Your task to perform on an android device: Open Google Maps and go to "Timeline" Image 0: 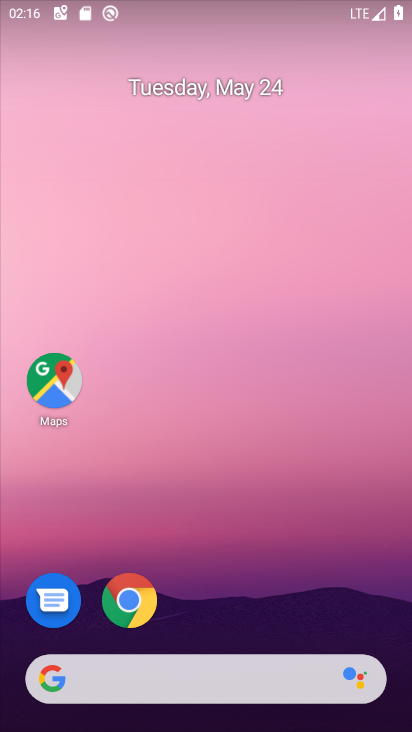
Step 0: click (134, 608)
Your task to perform on an android device: Open Google Maps and go to "Timeline" Image 1: 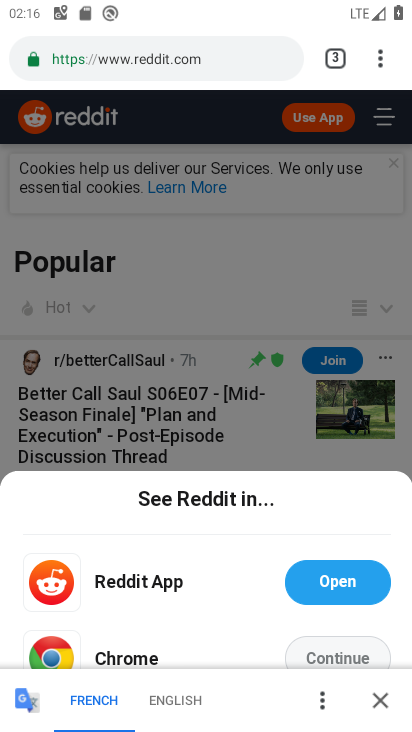
Step 1: click (380, 57)
Your task to perform on an android device: Open Google Maps and go to "Timeline" Image 2: 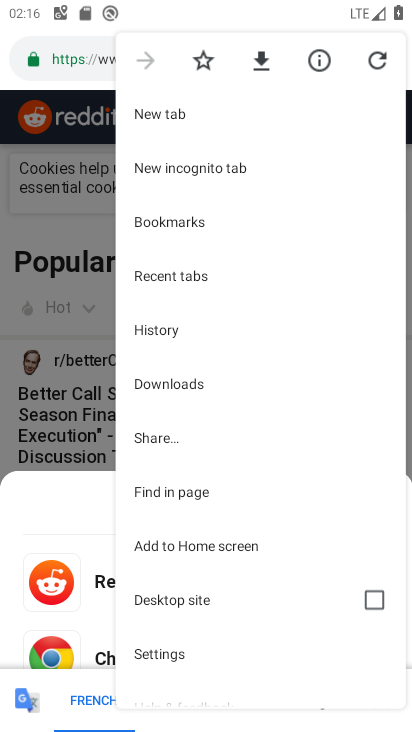
Step 2: drag from (269, 476) to (321, 163)
Your task to perform on an android device: Open Google Maps and go to "Timeline" Image 3: 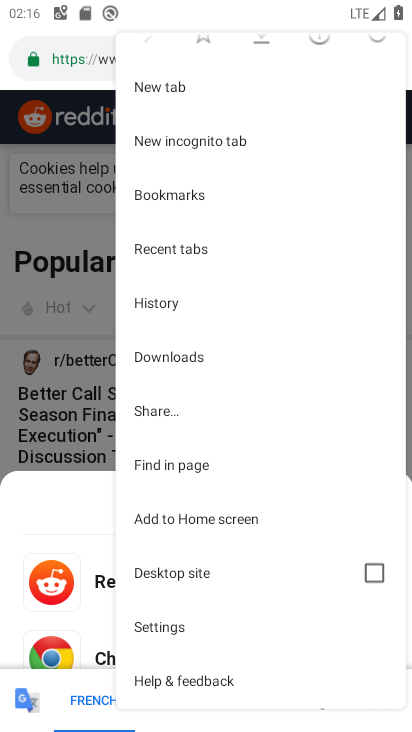
Step 3: click (180, 620)
Your task to perform on an android device: Open Google Maps and go to "Timeline" Image 4: 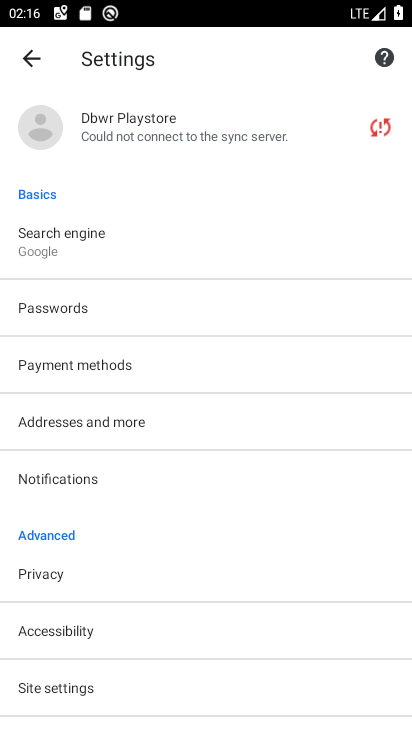
Step 4: drag from (188, 599) to (187, 445)
Your task to perform on an android device: Open Google Maps and go to "Timeline" Image 5: 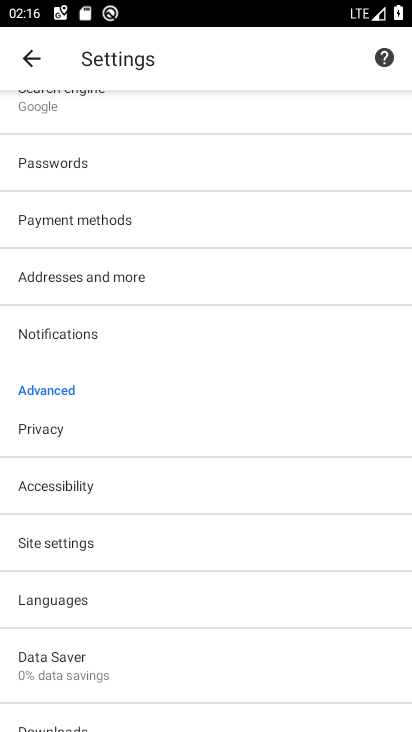
Step 5: click (98, 427)
Your task to perform on an android device: Open Google Maps and go to "Timeline" Image 6: 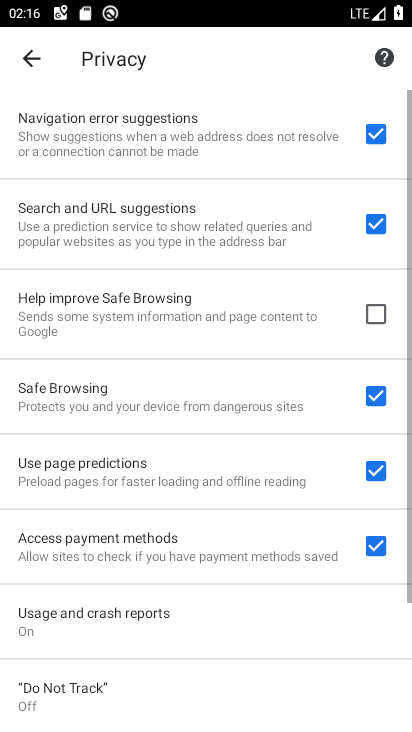
Step 6: drag from (172, 615) to (151, 403)
Your task to perform on an android device: Open Google Maps and go to "Timeline" Image 7: 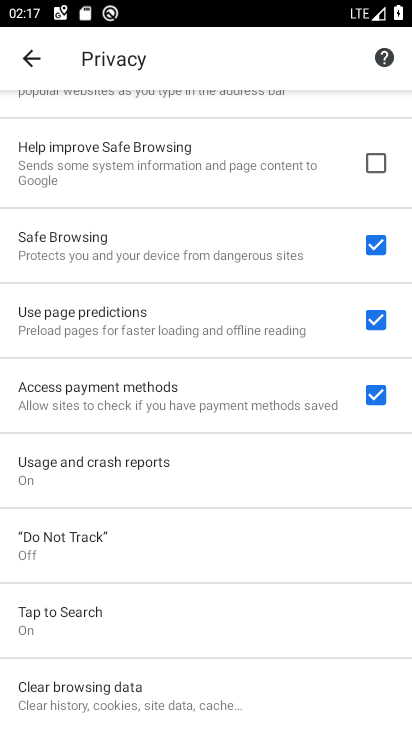
Step 7: drag from (189, 594) to (209, 271)
Your task to perform on an android device: Open Google Maps and go to "Timeline" Image 8: 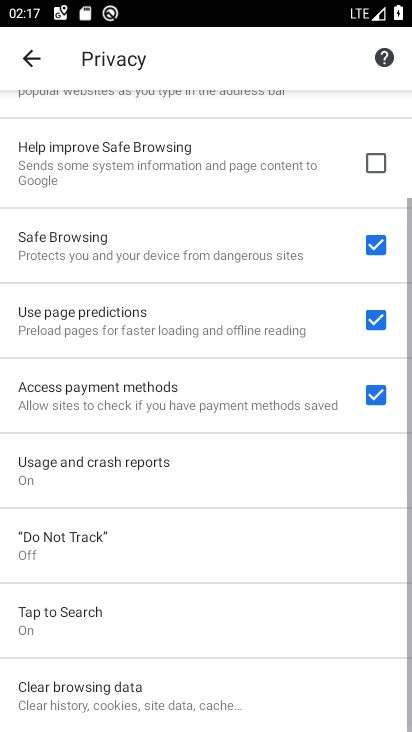
Step 8: drag from (212, 196) to (240, 609)
Your task to perform on an android device: Open Google Maps and go to "Timeline" Image 9: 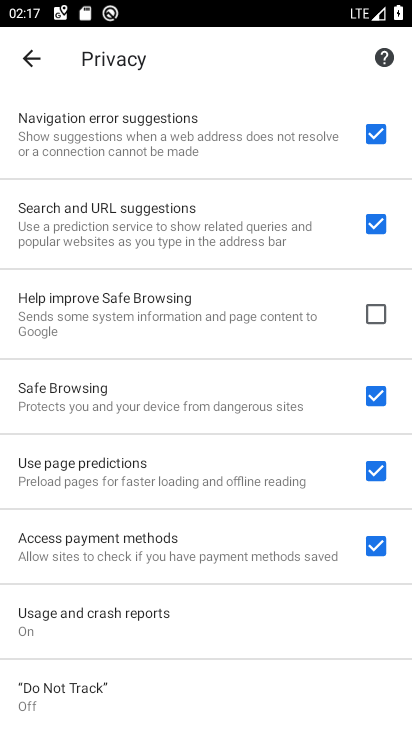
Step 9: drag from (238, 353) to (236, 571)
Your task to perform on an android device: Open Google Maps and go to "Timeline" Image 10: 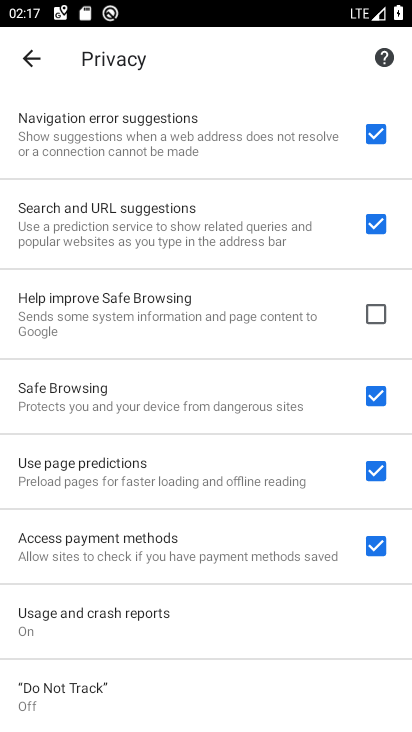
Step 10: drag from (257, 422) to (269, 606)
Your task to perform on an android device: Open Google Maps and go to "Timeline" Image 11: 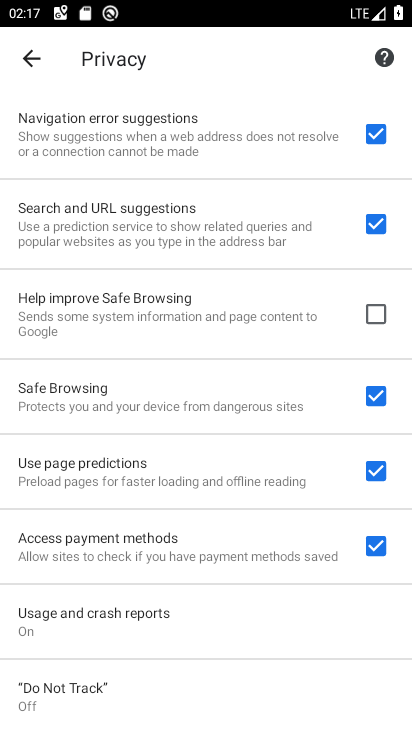
Step 11: press back button
Your task to perform on an android device: Open Google Maps and go to "Timeline" Image 12: 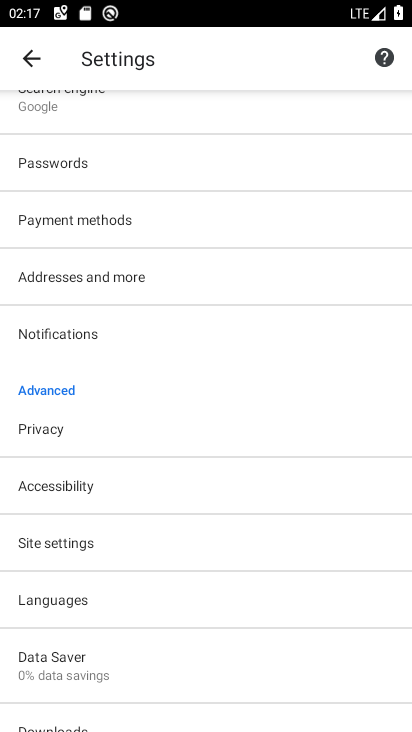
Step 12: drag from (132, 229) to (182, 510)
Your task to perform on an android device: Open Google Maps and go to "Timeline" Image 13: 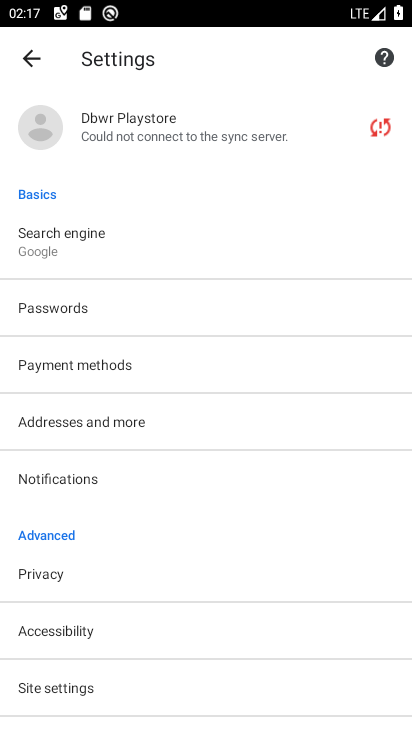
Step 13: drag from (114, 495) to (90, 166)
Your task to perform on an android device: Open Google Maps and go to "Timeline" Image 14: 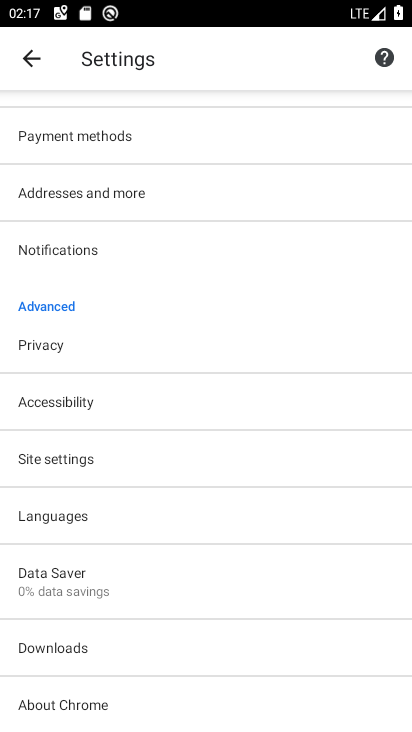
Step 14: click (142, 403)
Your task to perform on an android device: Open Google Maps and go to "Timeline" Image 15: 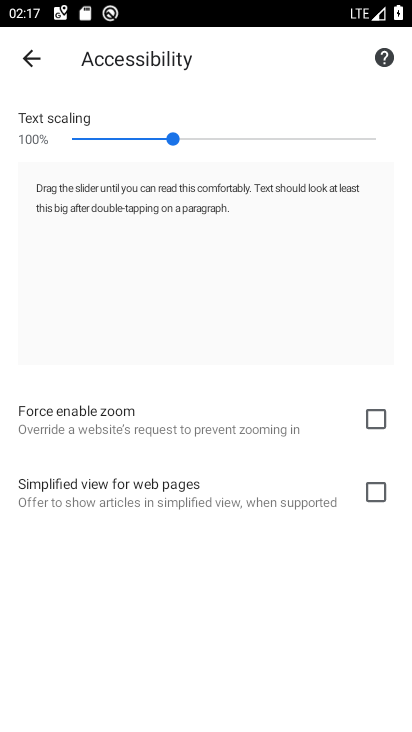
Step 15: press back button
Your task to perform on an android device: Open Google Maps and go to "Timeline" Image 16: 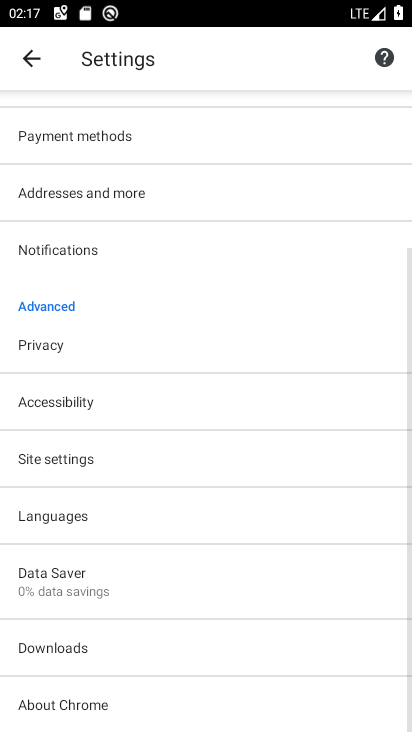
Step 16: click (89, 345)
Your task to perform on an android device: Open Google Maps and go to "Timeline" Image 17: 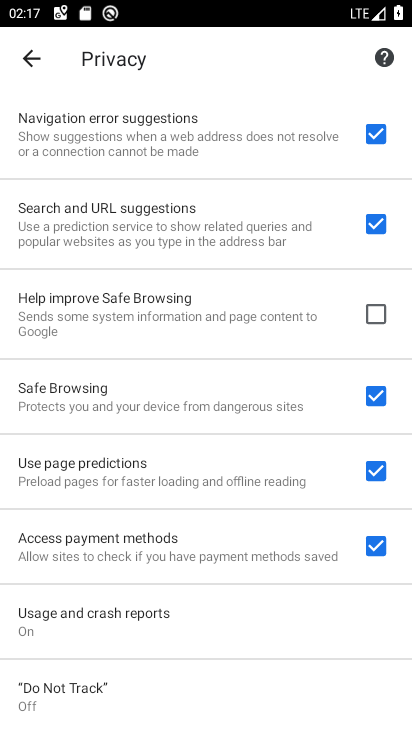
Step 17: press back button
Your task to perform on an android device: Open Google Maps and go to "Timeline" Image 18: 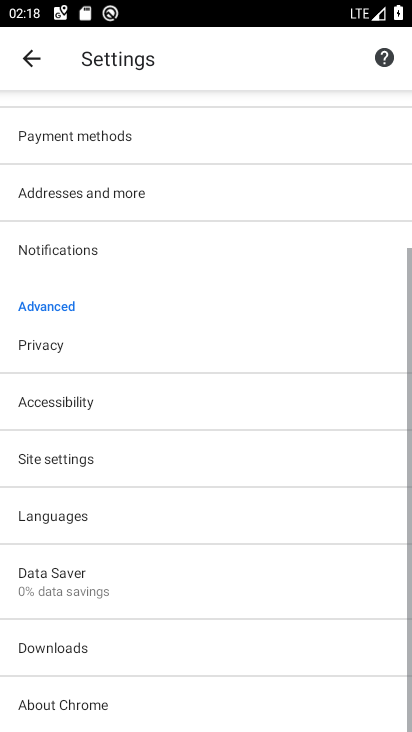
Step 18: click (299, 462)
Your task to perform on an android device: Open Google Maps and go to "Timeline" Image 19: 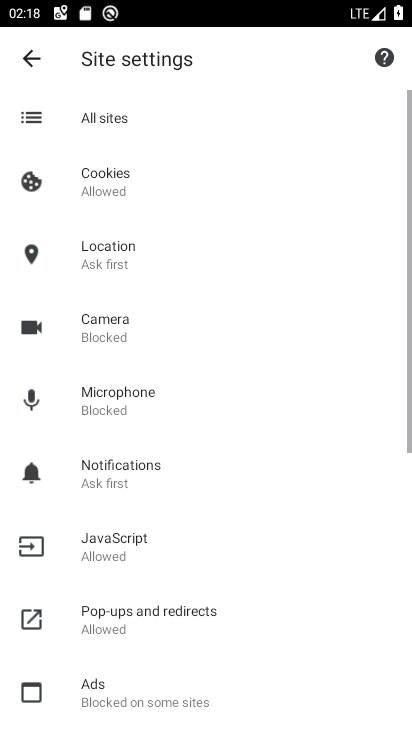
Step 19: drag from (233, 500) to (279, 199)
Your task to perform on an android device: Open Google Maps and go to "Timeline" Image 20: 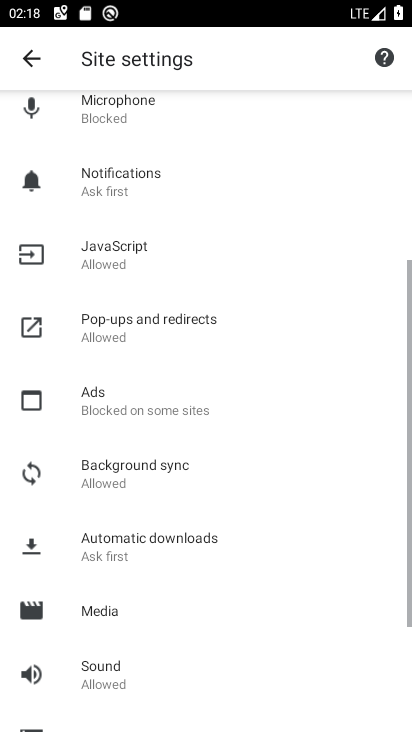
Step 20: drag from (281, 460) to (270, 140)
Your task to perform on an android device: Open Google Maps and go to "Timeline" Image 21: 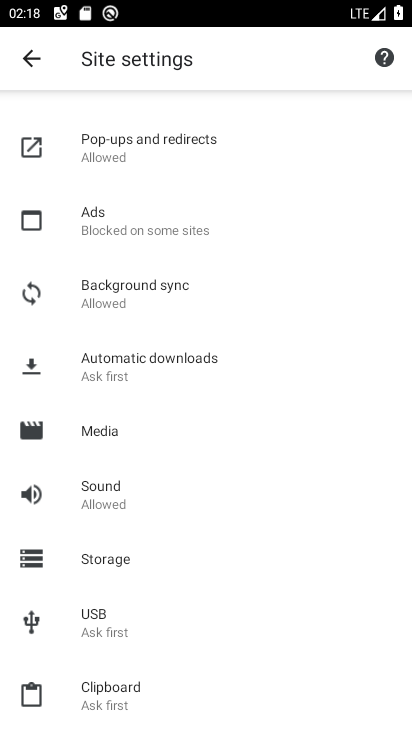
Step 21: press back button
Your task to perform on an android device: Open Google Maps and go to "Timeline" Image 22: 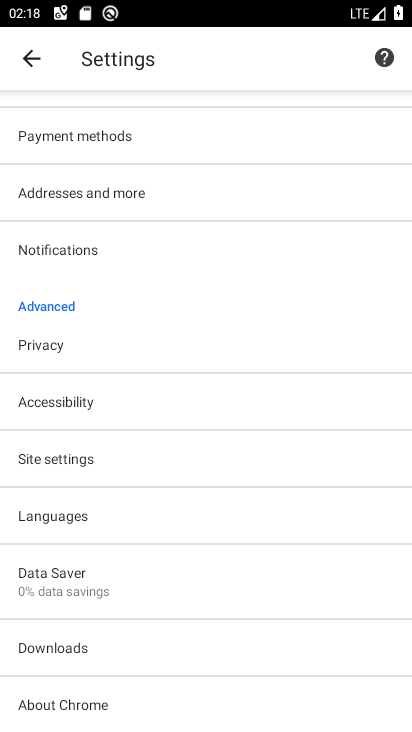
Step 22: drag from (107, 249) to (194, 505)
Your task to perform on an android device: Open Google Maps and go to "Timeline" Image 23: 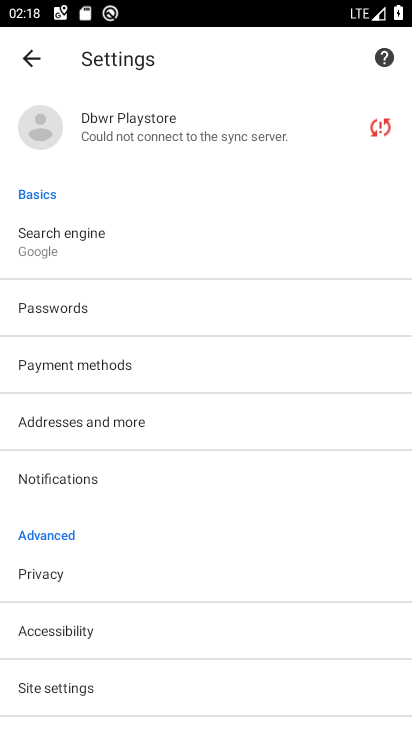
Step 23: press back button
Your task to perform on an android device: Open Google Maps and go to "Timeline" Image 24: 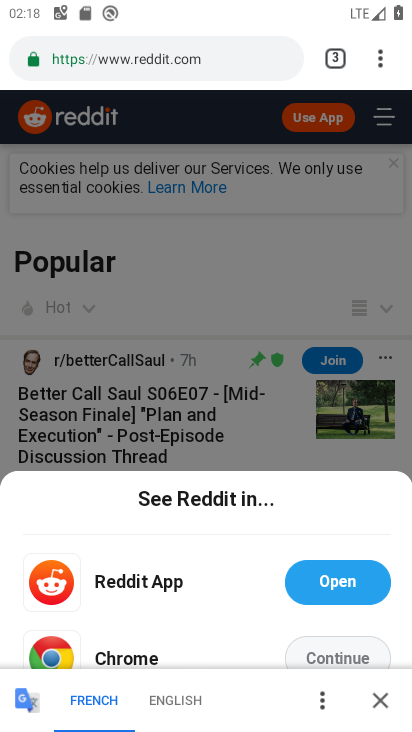
Step 24: press back button
Your task to perform on an android device: Open Google Maps and go to "Timeline" Image 25: 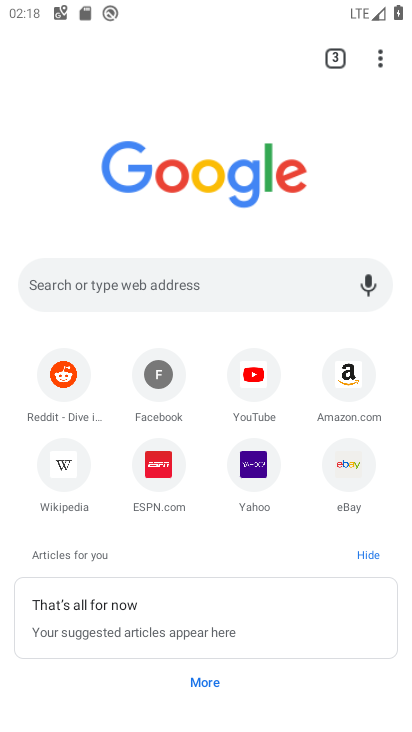
Step 25: click (278, 283)
Your task to perform on an android device: Open Google Maps and go to "Timeline" Image 26: 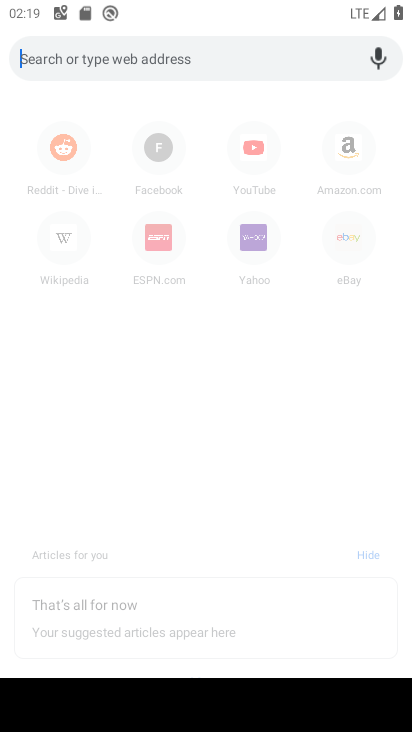
Step 26: type "Timeline"
Your task to perform on an android device: Open Google Maps and go to "Timeline" Image 27: 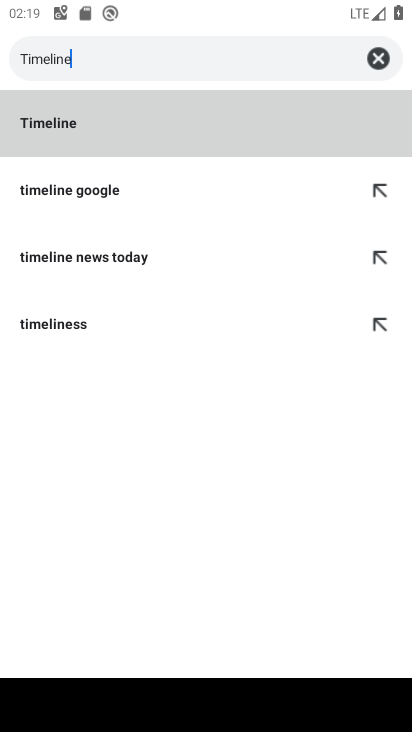
Step 27: click (280, 105)
Your task to perform on an android device: Open Google Maps and go to "Timeline" Image 28: 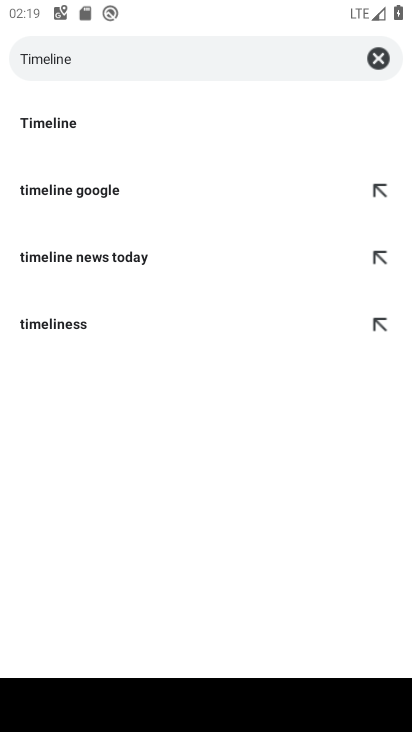
Step 28: click (218, 118)
Your task to perform on an android device: Open Google Maps and go to "Timeline" Image 29: 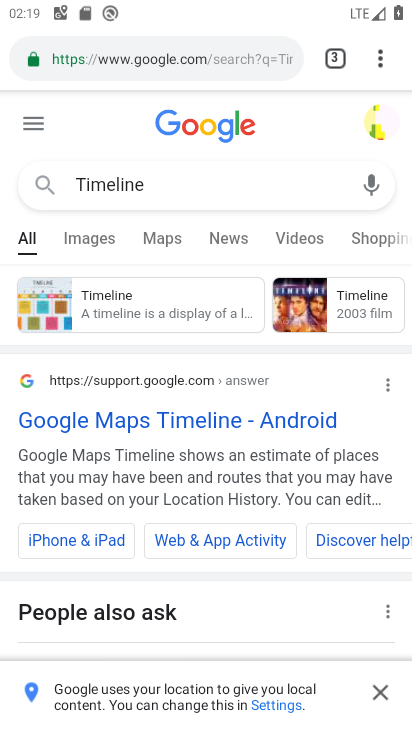
Step 29: click (110, 403)
Your task to perform on an android device: Open Google Maps and go to "Timeline" Image 30: 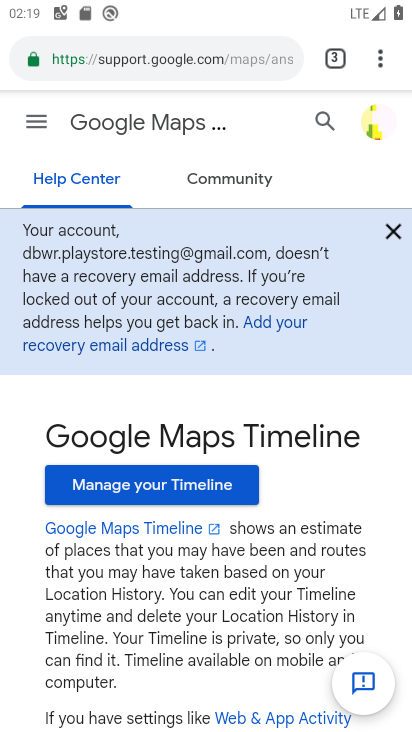
Step 30: click (231, 492)
Your task to perform on an android device: Open Google Maps and go to "Timeline" Image 31: 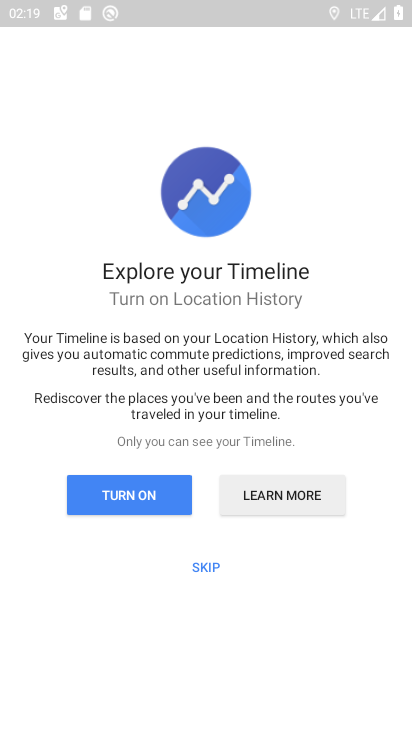
Step 31: task complete